Your task to perform on an android device: empty trash in google photos Image 0: 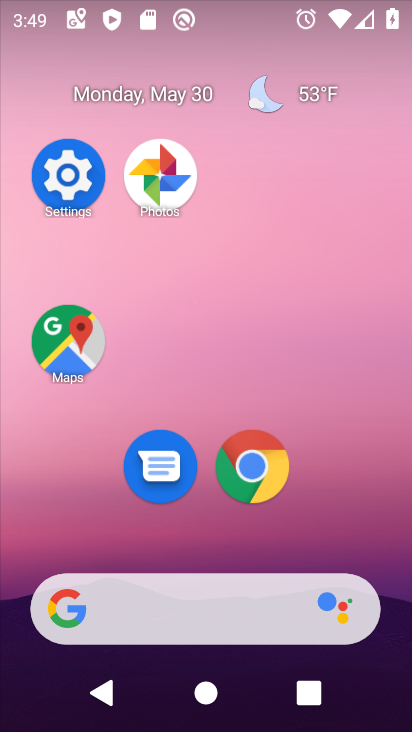
Step 0: click (153, 153)
Your task to perform on an android device: empty trash in google photos Image 1: 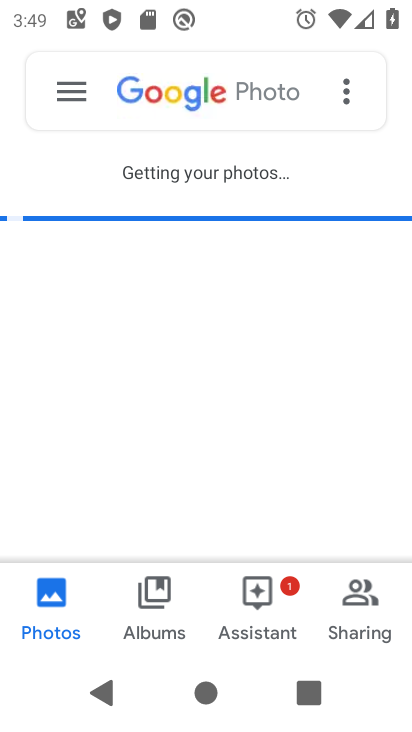
Step 1: click (72, 102)
Your task to perform on an android device: empty trash in google photos Image 2: 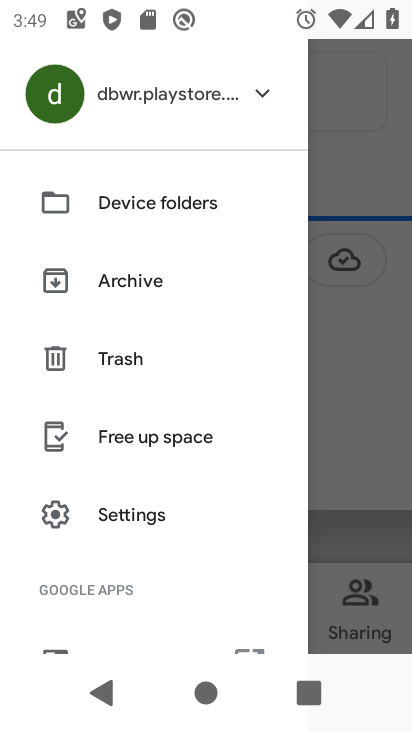
Step 2: click (159, 364)
Your task to perform on an android device: empty trash in google photos Image 3: 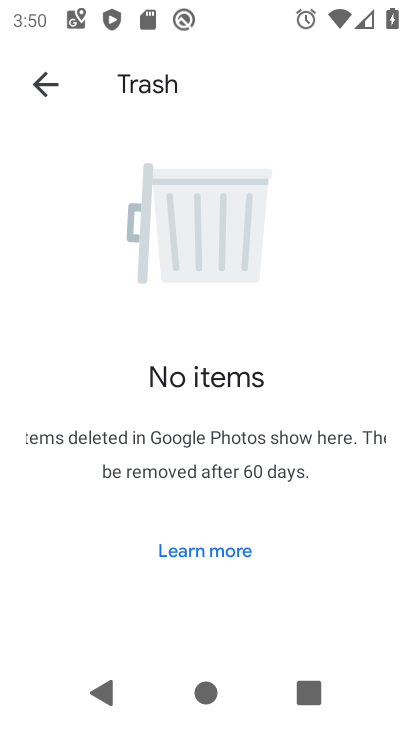
Step 3: task complete